Your task to perform on an android device: Go to ESPN.com Image 0: 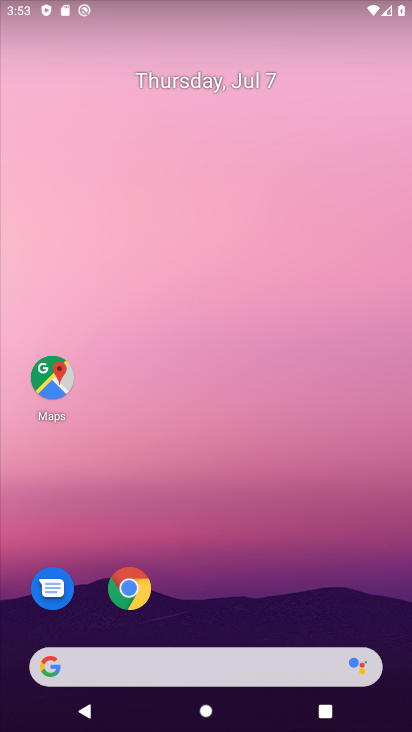
Step 0: press home button
Your task to perform on an android device: Go to ESPN.com Image 1: 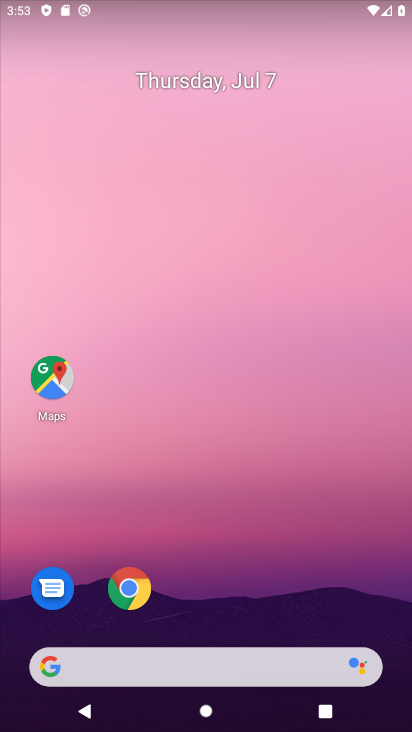
Step 1: click (46, 657)
Your task to perform on an android device: Go to ESPN.com Image 2: 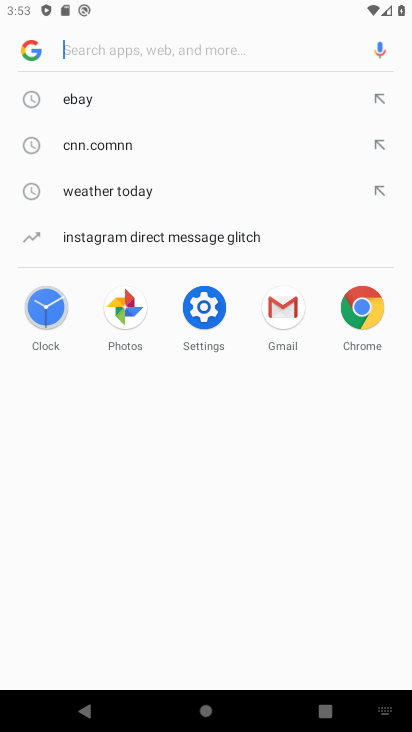
Step 2: type "ESPN.com"
Your task to perform on an android device: Go to ESPN.com Image 3: 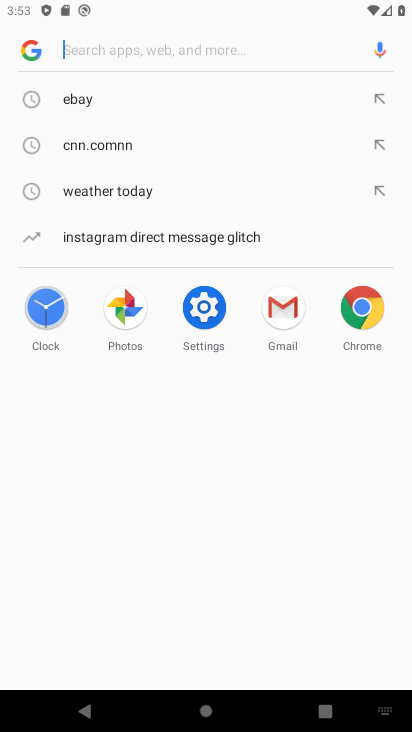
Step 3: click (240, 44)
Your task to perform on an android device: Go to ESPN.com Image 4: 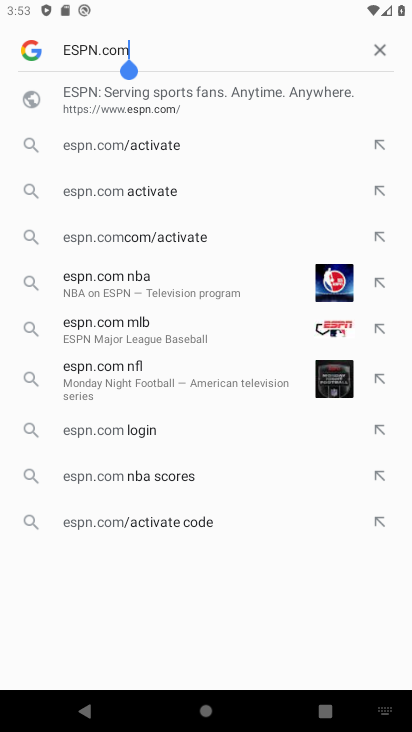
Step 4: click (125, 93)
Your task to perform on an android device: Go to ESPN.com Image 5: 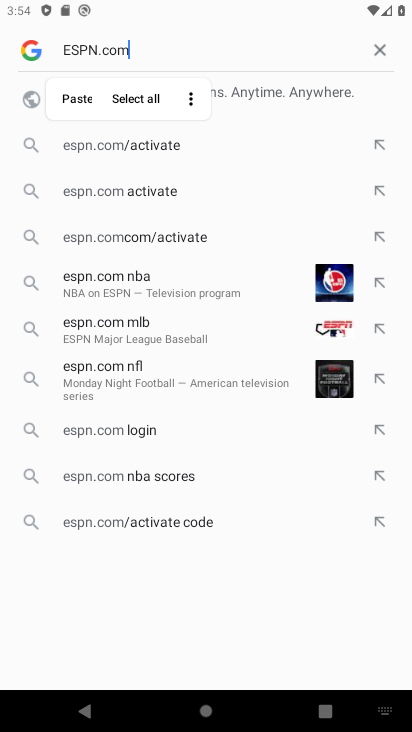
Step 5: click (161, 62)
Your task to perform on an android device: Go to ESPN.com Image 6: 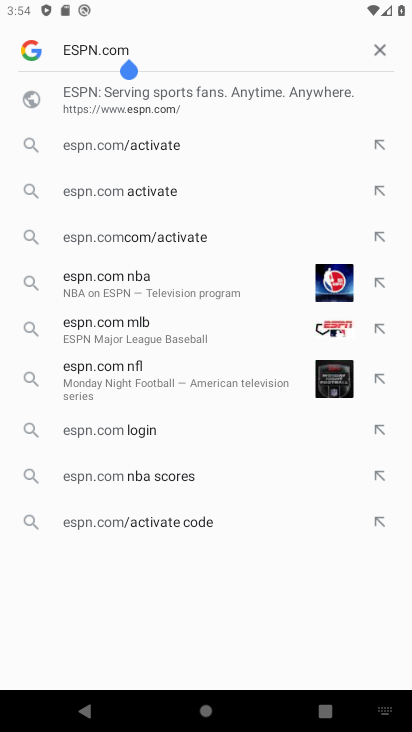
Step 6: click (161, 61)
Your task to perform on an android device: Go to ESPN.com Image 7: 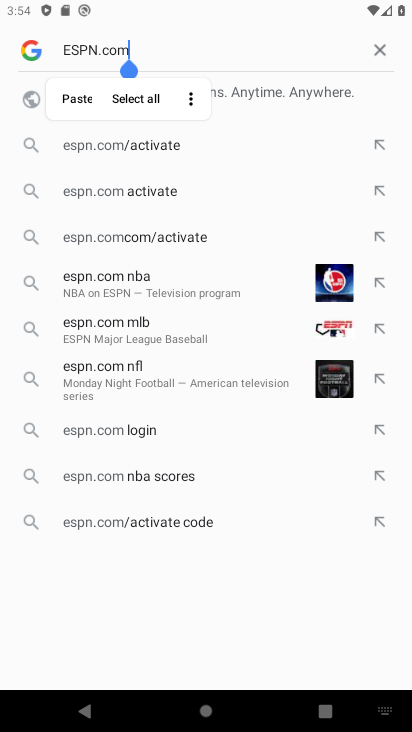
Step 7: click (252, 90)
Your task to perform on an android device: Go to ESPN.com Image 8: 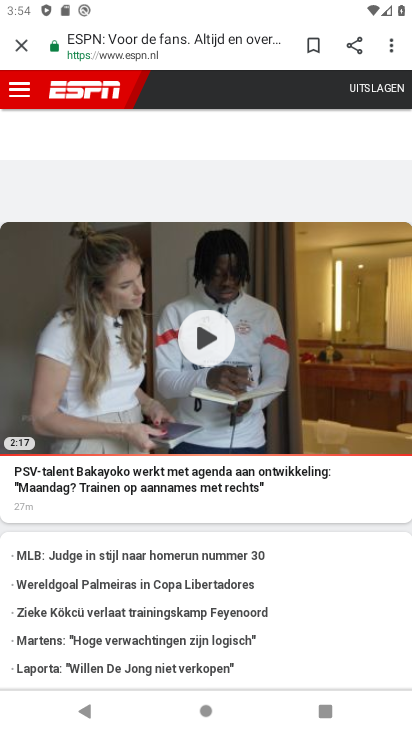
Step 8: task complete